Your task to perform on an android device: open a bookmark in the chrome app Image 0: 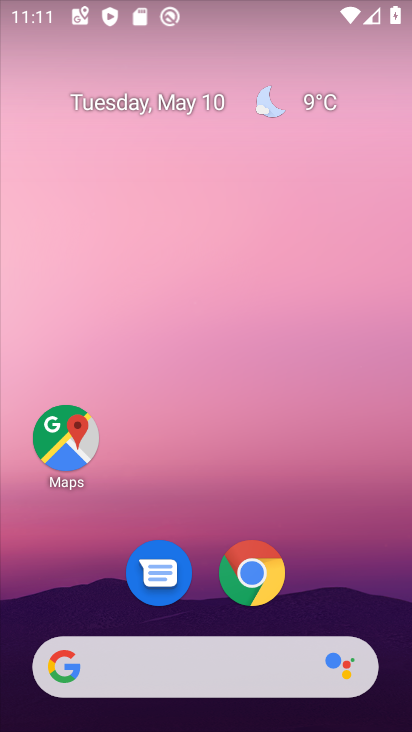
Step 0: click (250, 580)
Your task to perform on an android device: open a bookmark in the chrome app Image 1: 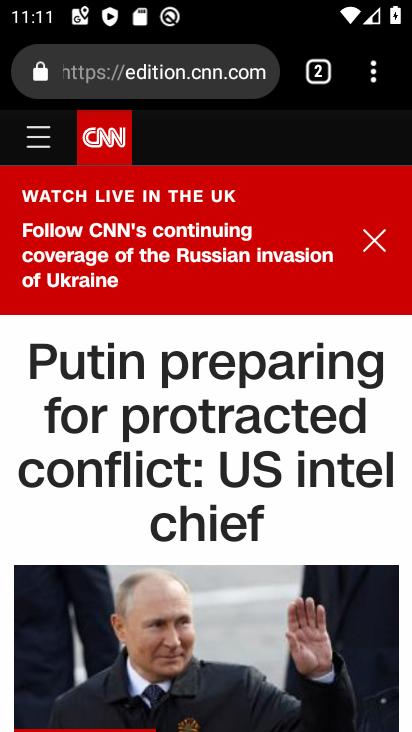
Step 1: click (373, 83)
Your task to perform on an android device: open a bookmark in the chrome app Image 2: 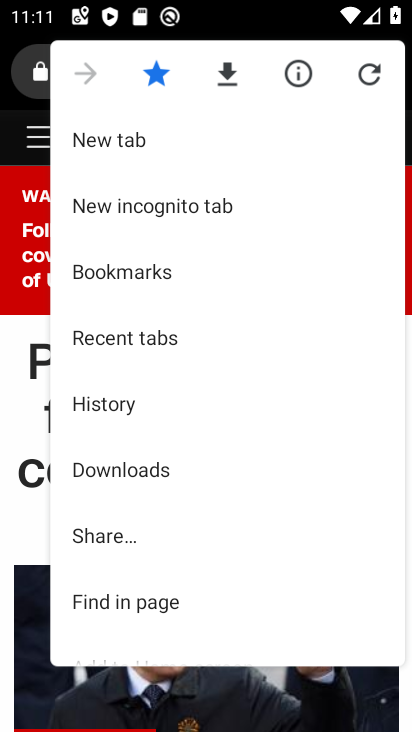
Step 2: click (122, 266)
Your task to perform on an android device: open a bookmark in the chrome app Image 3: 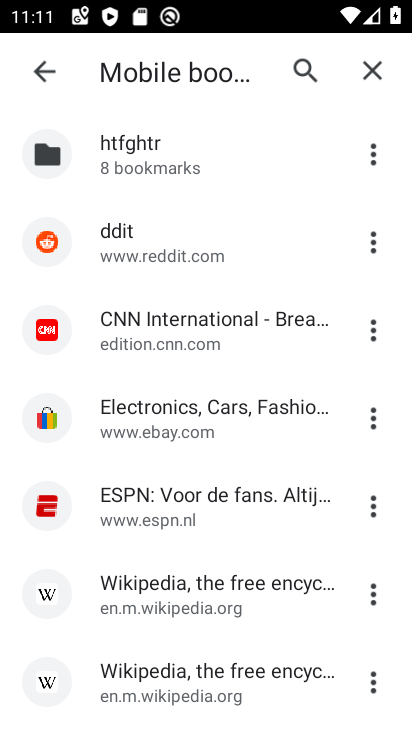
Step 3: click (154, 326)
Your task to perform on an android device: open a bookmark in the chrome app Image 4: 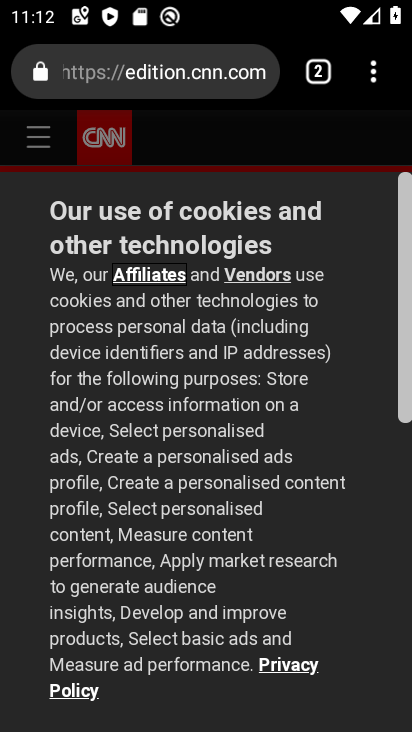
Step 4: task complete